Your task to perform on an android device: Play the last video I watched on Youtube Image 0: 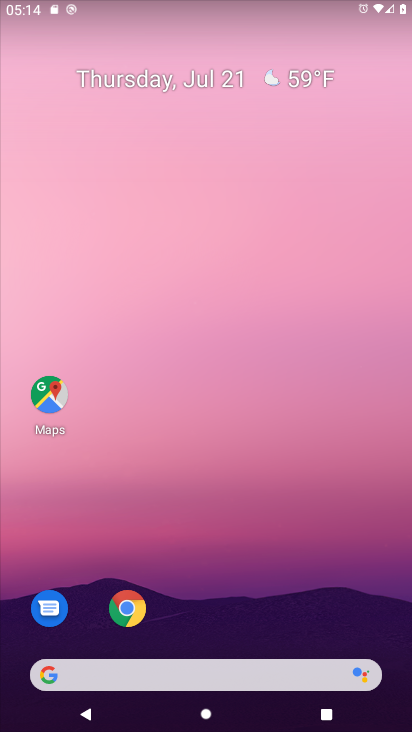
Step 0: drag from (319, 675) to (396, 10)
Your task to perform on an android device: Play the last video I watched on Youtube Image 1: 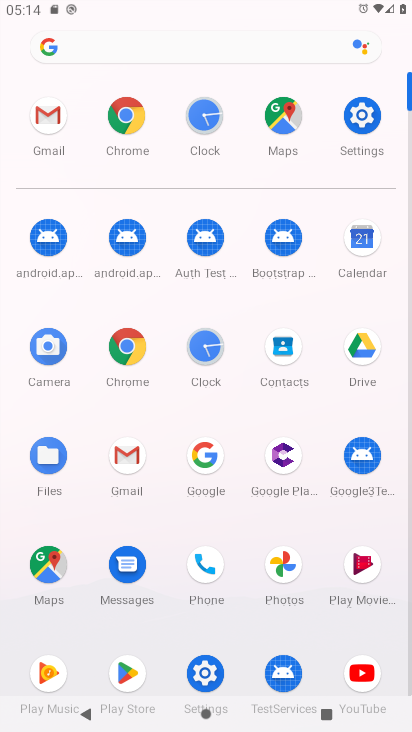
Step 1: click (371, 681)
Your task to perform on an android device: Play the last video I watched on Youtube Image 2: 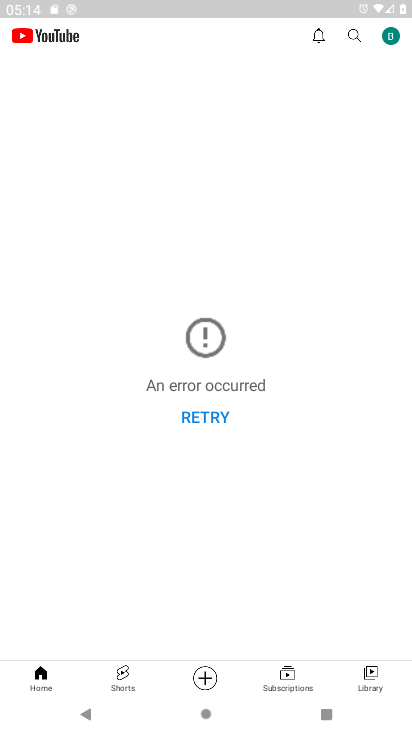
Step 2: click (374, 681)
Your task to perform on an android device: Play the last video I watched on Youtube Image 3: 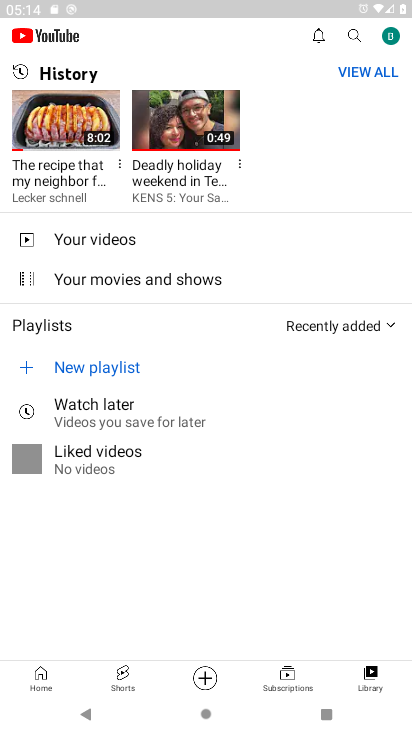
Step 3: click (78, 129)
Your task to perform on an android device: Play the last video I watched on Youtube Image 4: 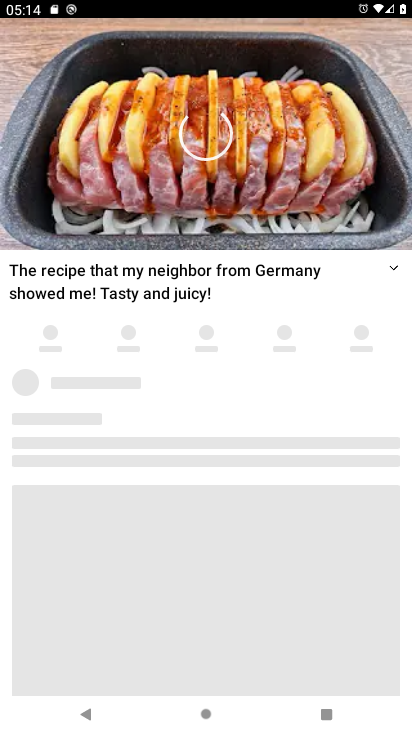
Step 4: task complete